Your task to perform on an android device: find photos in the google photos app Image 0: 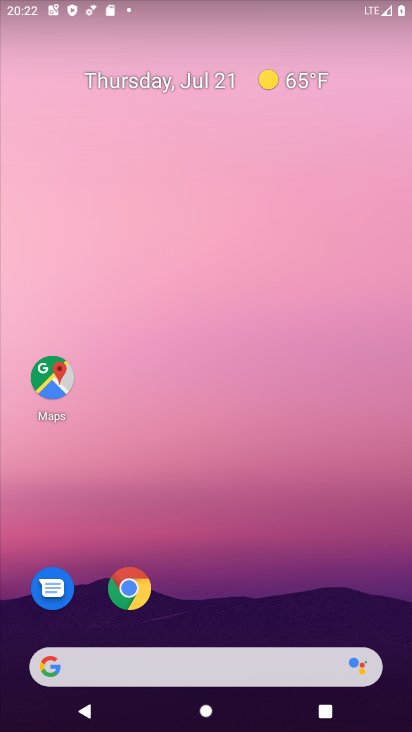
Step 0: drag from (264, 641) to (217, 18)
Your task to perform on an android device: find photos in the google photos app Image 1: 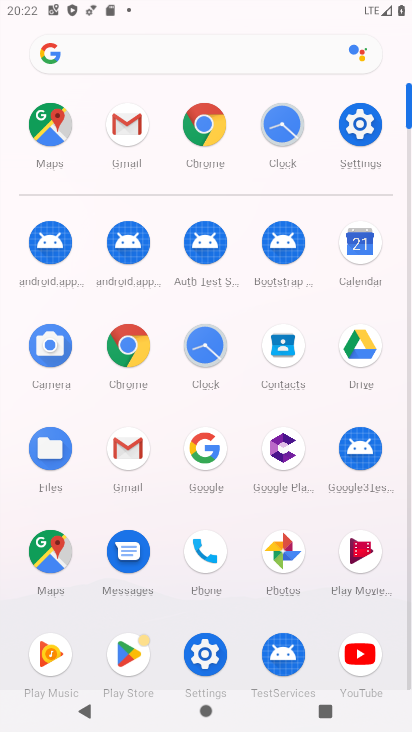
Step 1: click (292, 554)
Your task to perform on an android device: find photos in the google photos app Image 2: 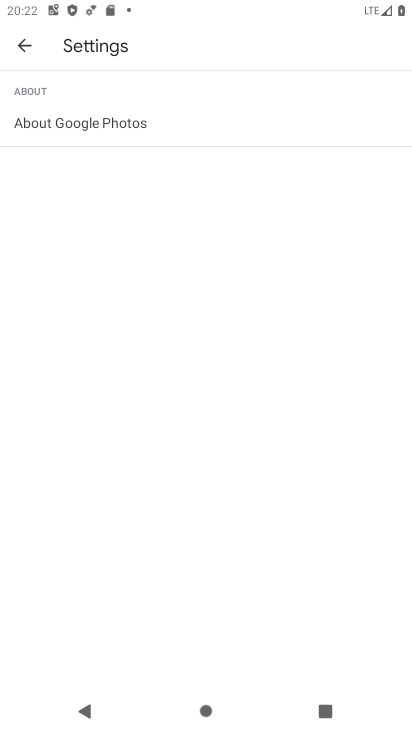
Step 2: click (15, 49)
Your task to perform on an android device: find photos in the google photos app Image 3: 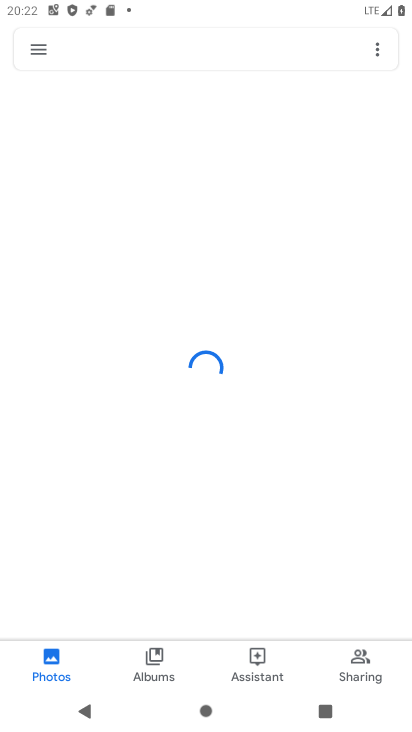
Step 3: drag from (195, 153) to (193, 433)
Your task to perform on an android device: find photos in the google photos app Image 4: 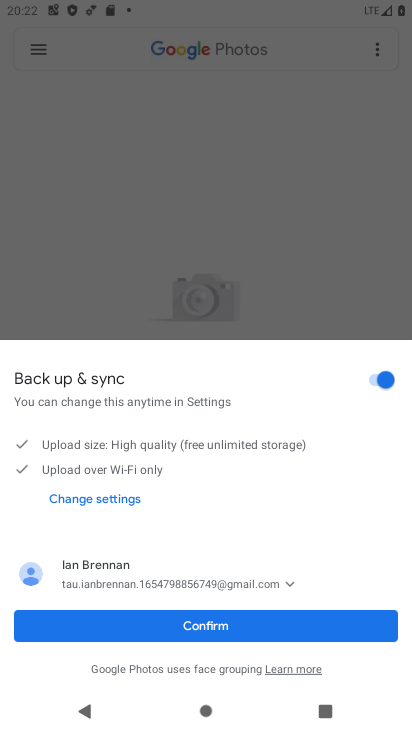
Step 4: click (290, 642)
Your task to perform on an android device: find photos in the google photos app Image 5: 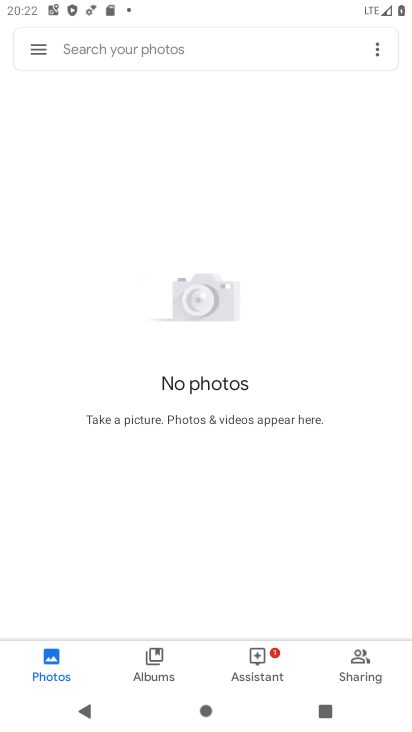
Step 5: task complete